Your task to perform on an android device: delete a single message in the gmail app Image 0: 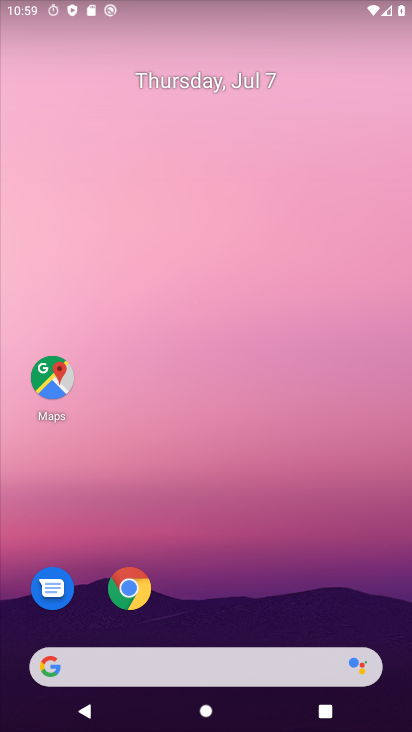
Step 0: drag from (341, 564) to (331, 34)
Your task to perform on an android device: delete a single message in the gmail app Image 1: 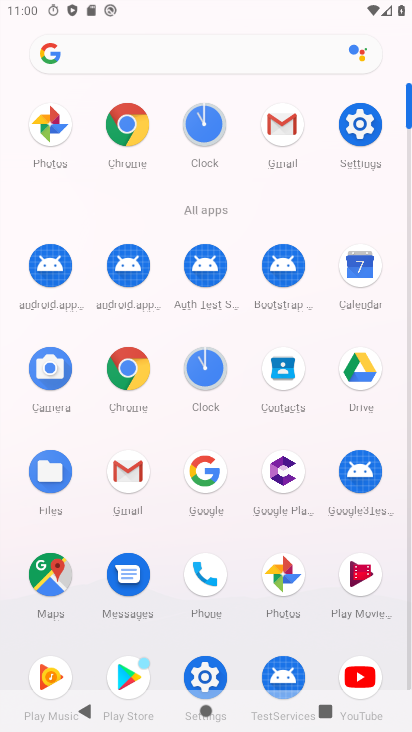
Step 1: click (292, 125)
Your task to perform on an android device: delete a single message in the gmail app Image 2: 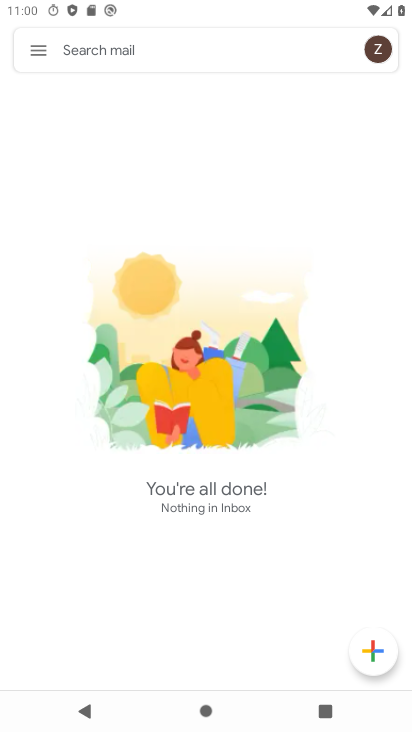
Step 2: click (36, 48)
Your task to perform on an android device: delete a single message in the gmail app Image 3: 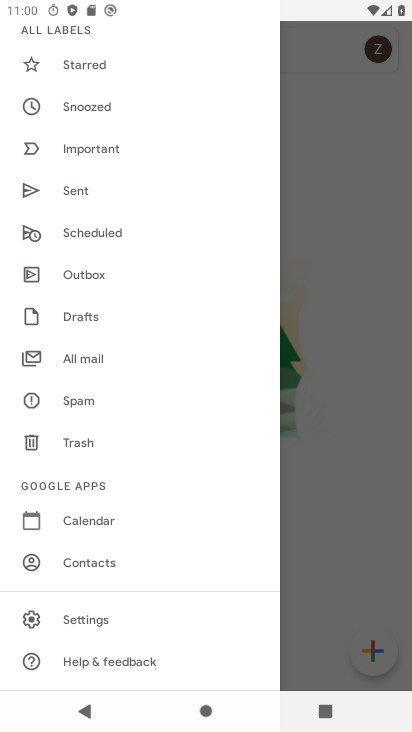
Step 3: click (100, 362)
Your task to perform on an android device: delete a single message in the gmail app Image 4: 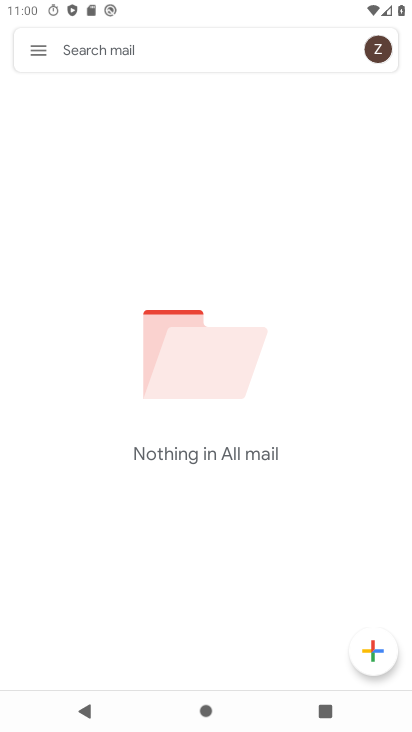
Step 4: task complete